Your task to perform on an android device: Search for vegetarian restaurants on Maps Image 0: 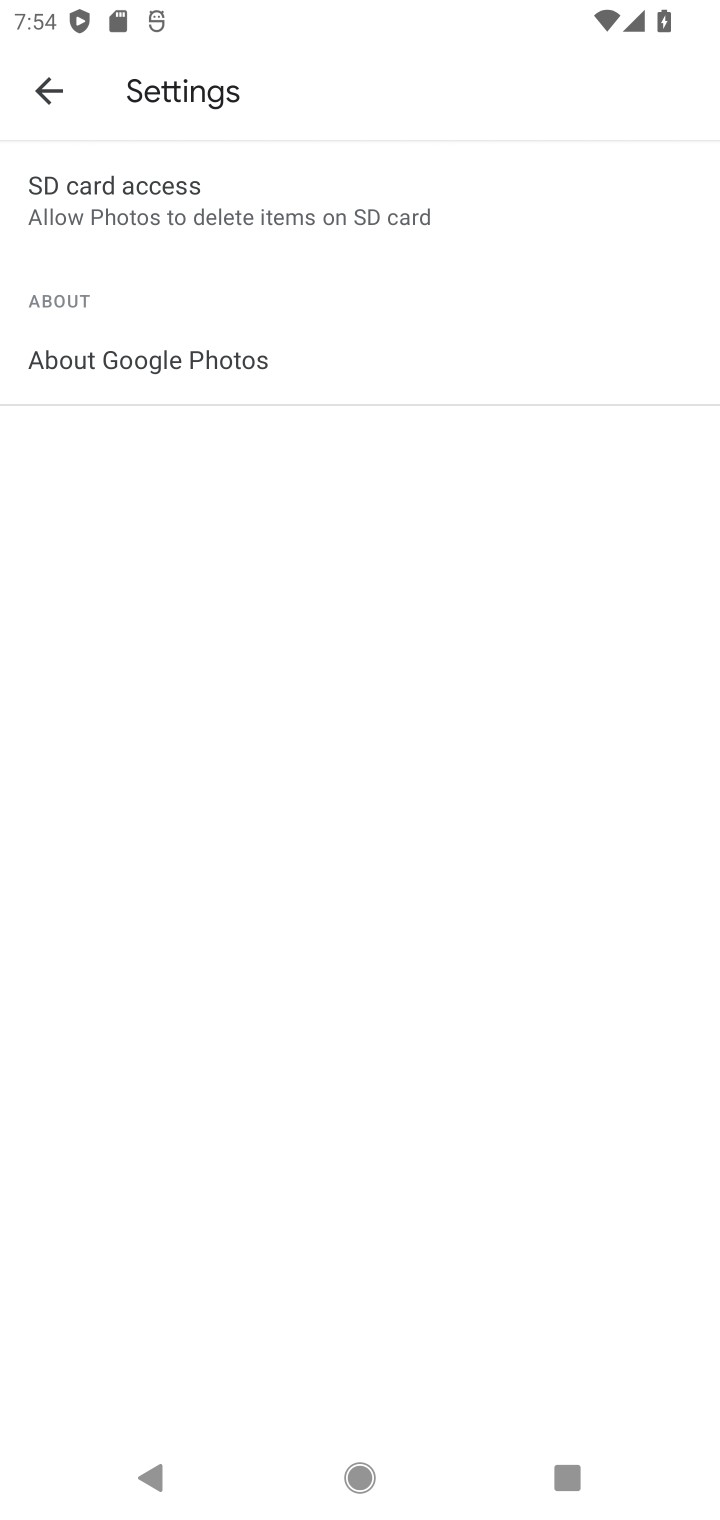
Step 0: press home button
Your task to perform on an android device: Search for vegetarian restaurants on Maps Image 1: 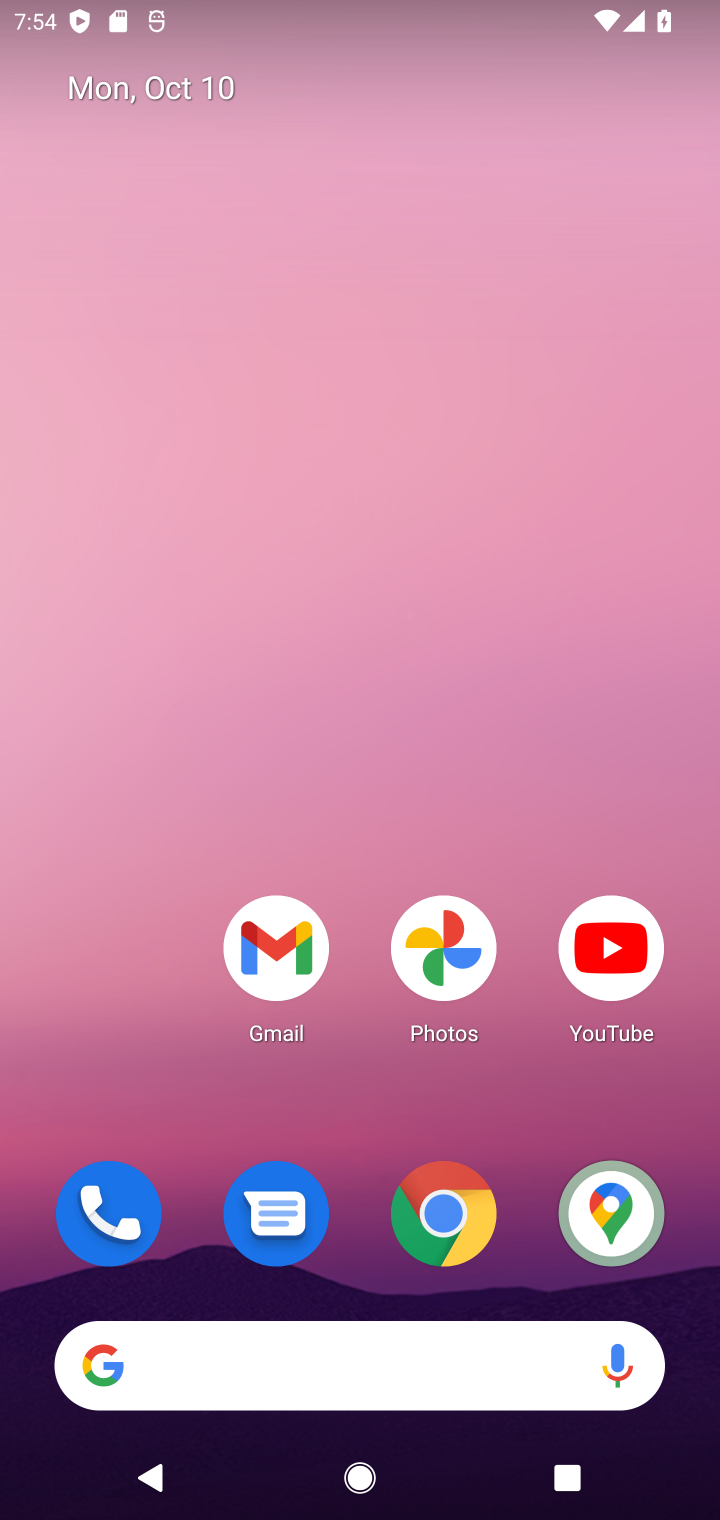
Step 1: click (595, 1213)
Your task to perform on an android device: Search for vegetarian restaurants on Maps Image 2: 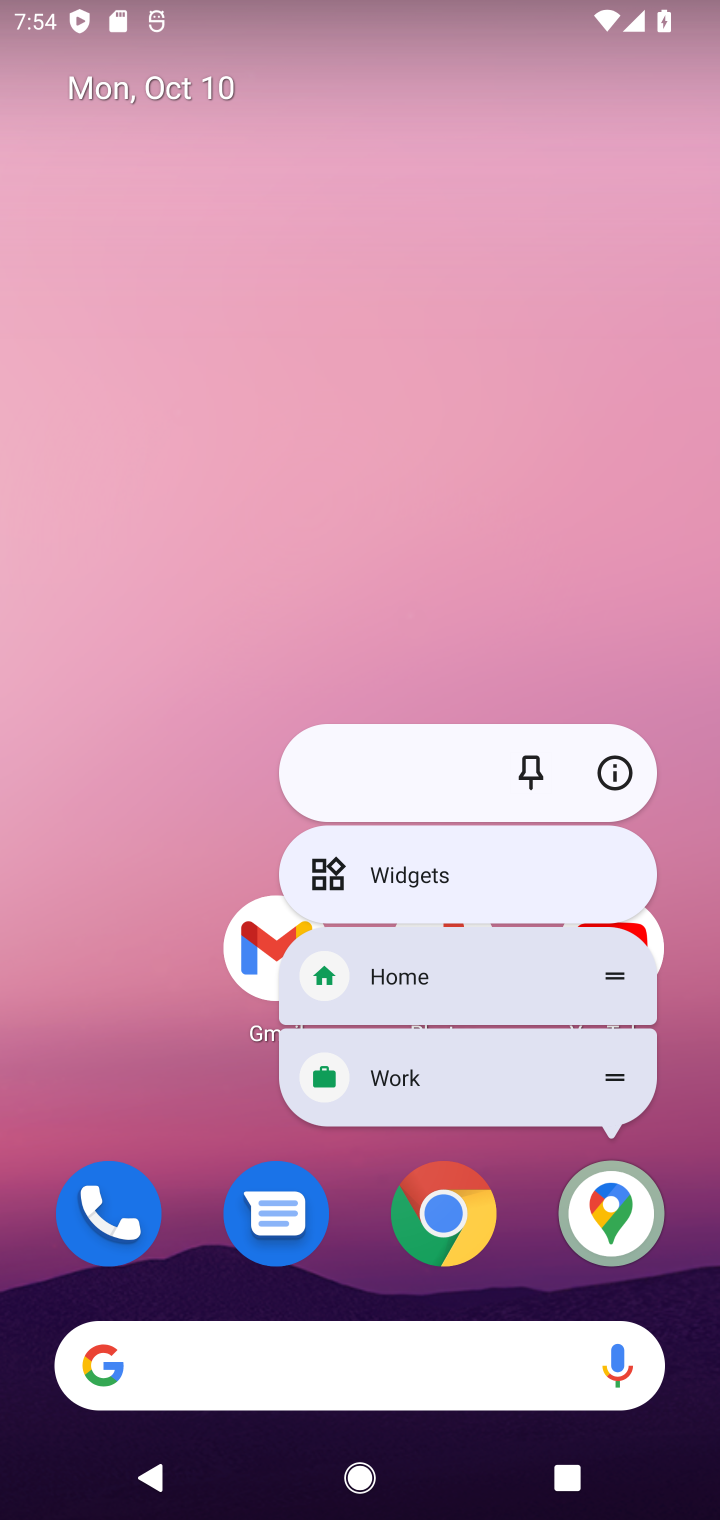
Step 2: click (605, 1243)
Your task to perform on an android device: Search for vegetarian restaurants on Maps Image 3: 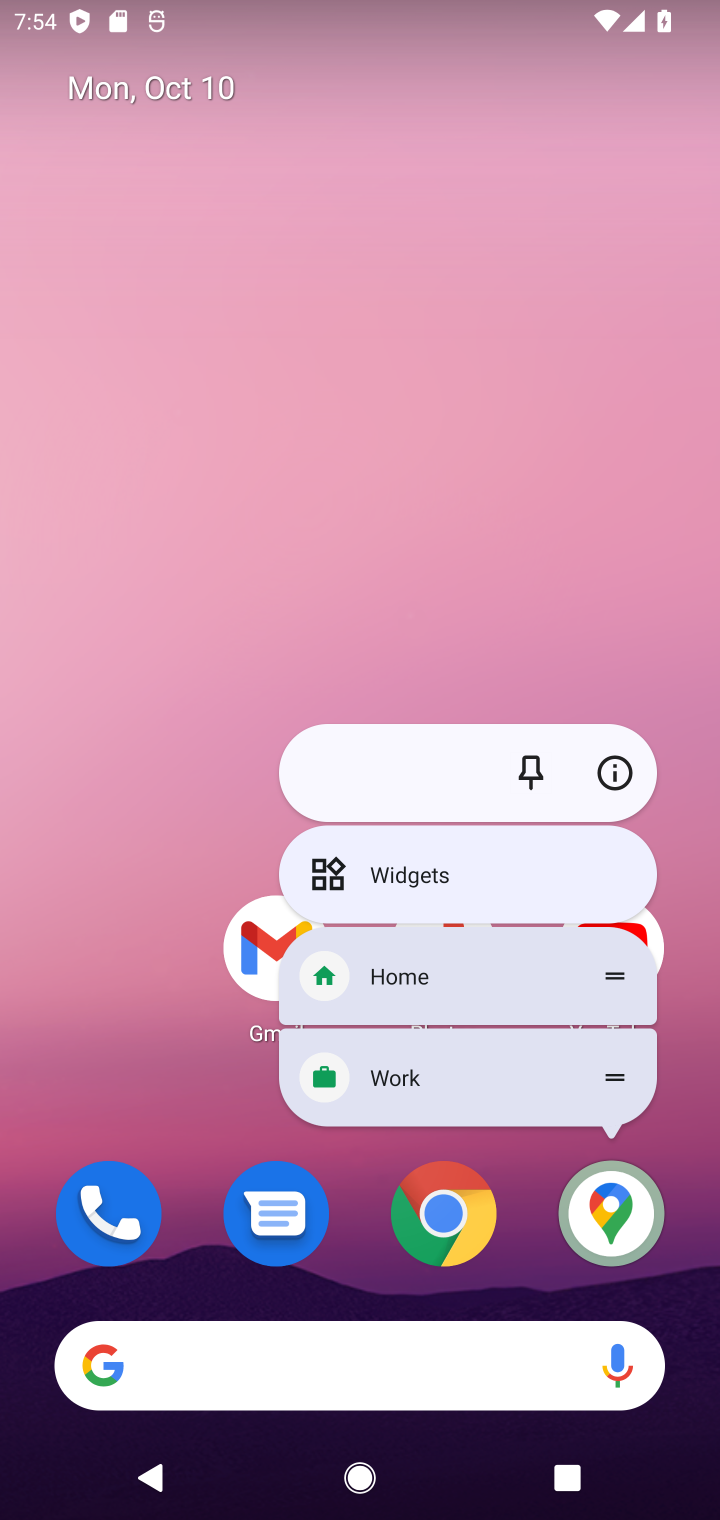
Step 3: click (610, 1211)
Your task to perform on an android device: Search for vegetarian restaurants on Maps Image 4: 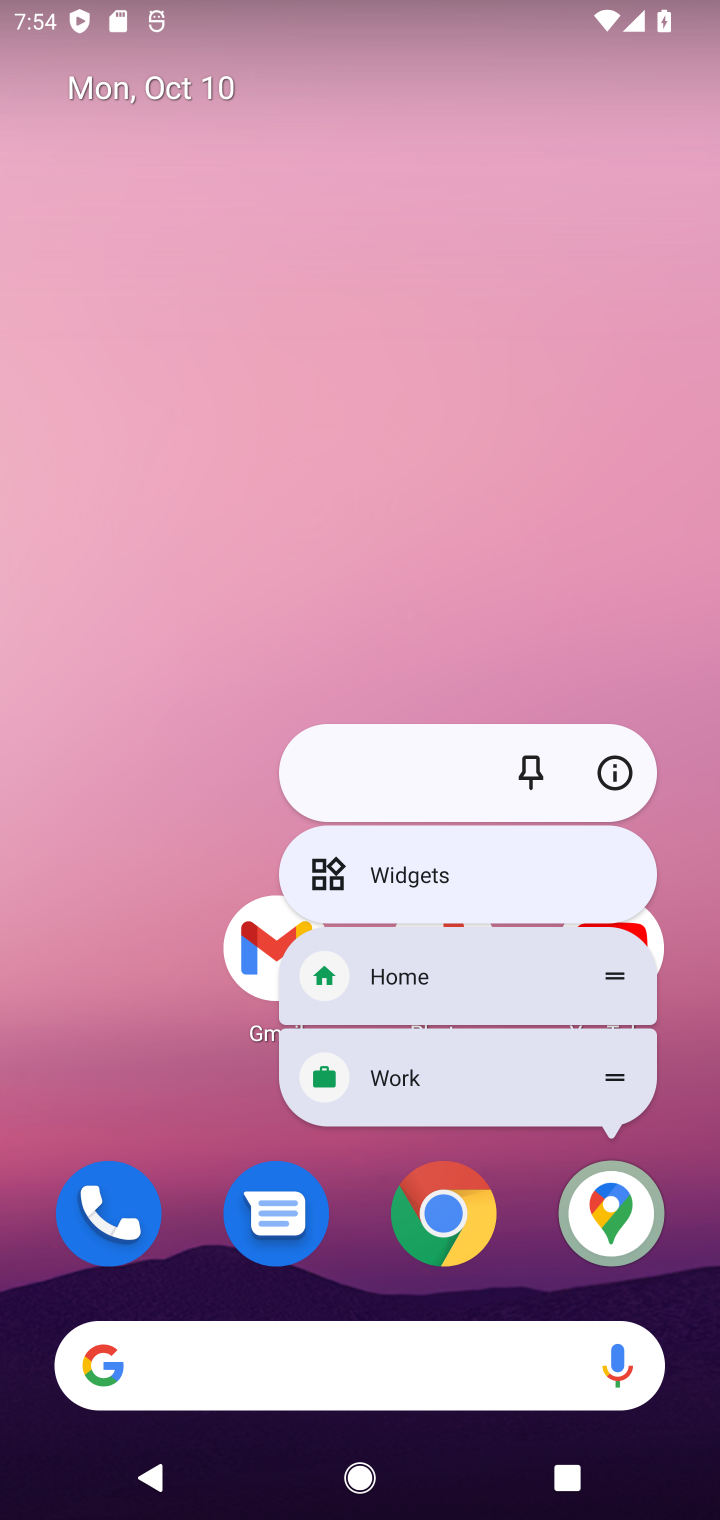
Step 4: click (599, 1220)
Your task to perform on an android device: Search for vegetarian restaurants on Maps Image 5: 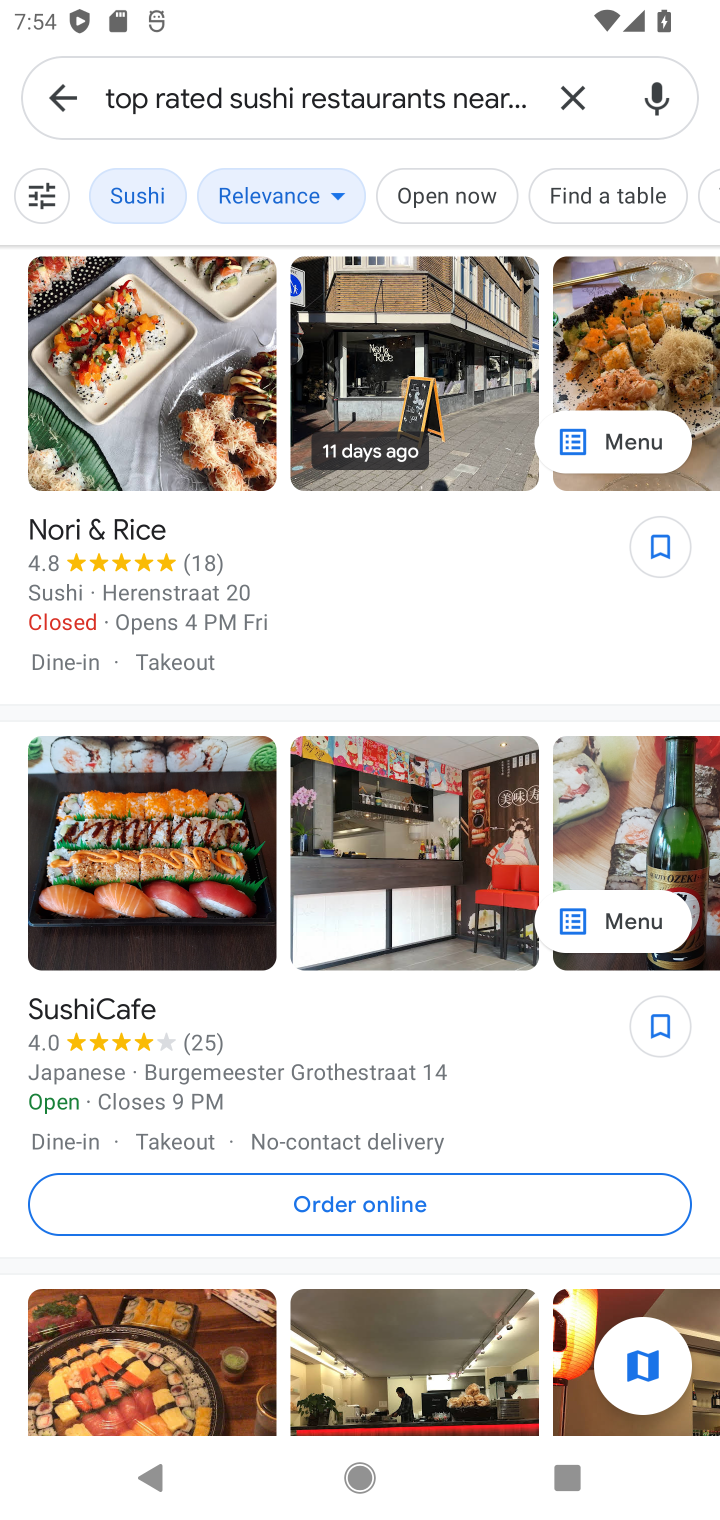
Step 5: click (569, 105)
Your task to perform on an android device: Search for vegetarian restaurants on Maps Image 6: 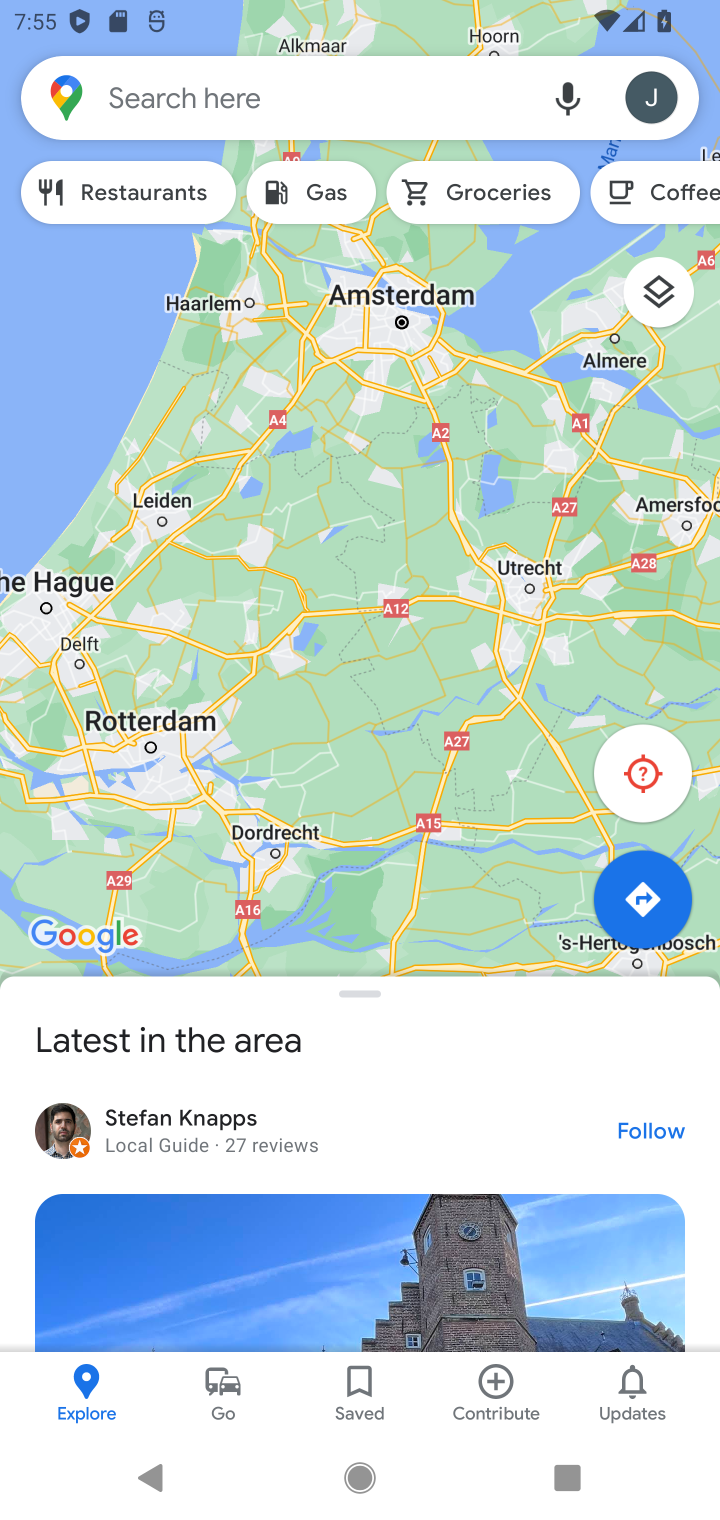
Step 6: click (183, 107)
Your task to perform on an android device: Search for vegetarian restaurants on Maps Image 7: 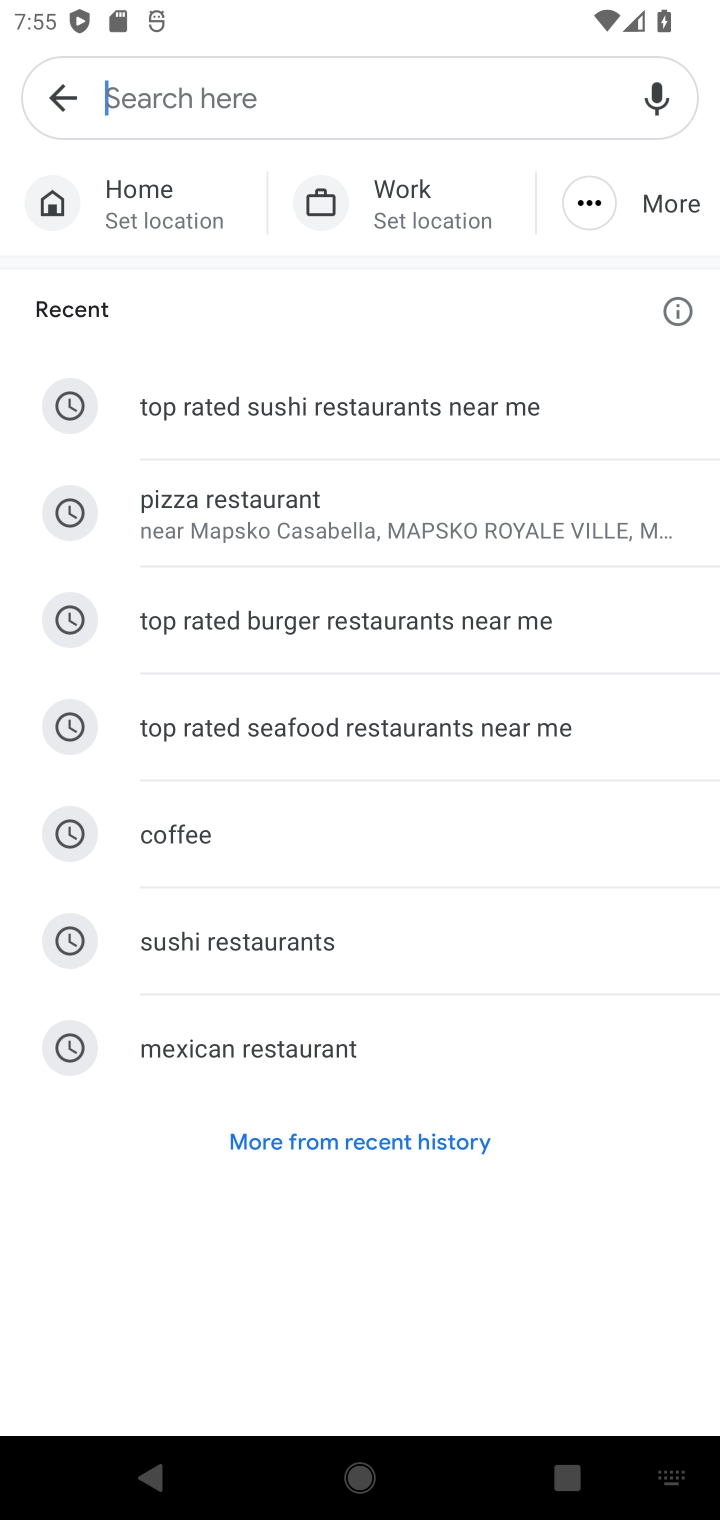
Step 7: type "vegetarian restaurants on Maps"
Your task to perform on an android device: Search for vegetarian restaurants on Maps Image 8: 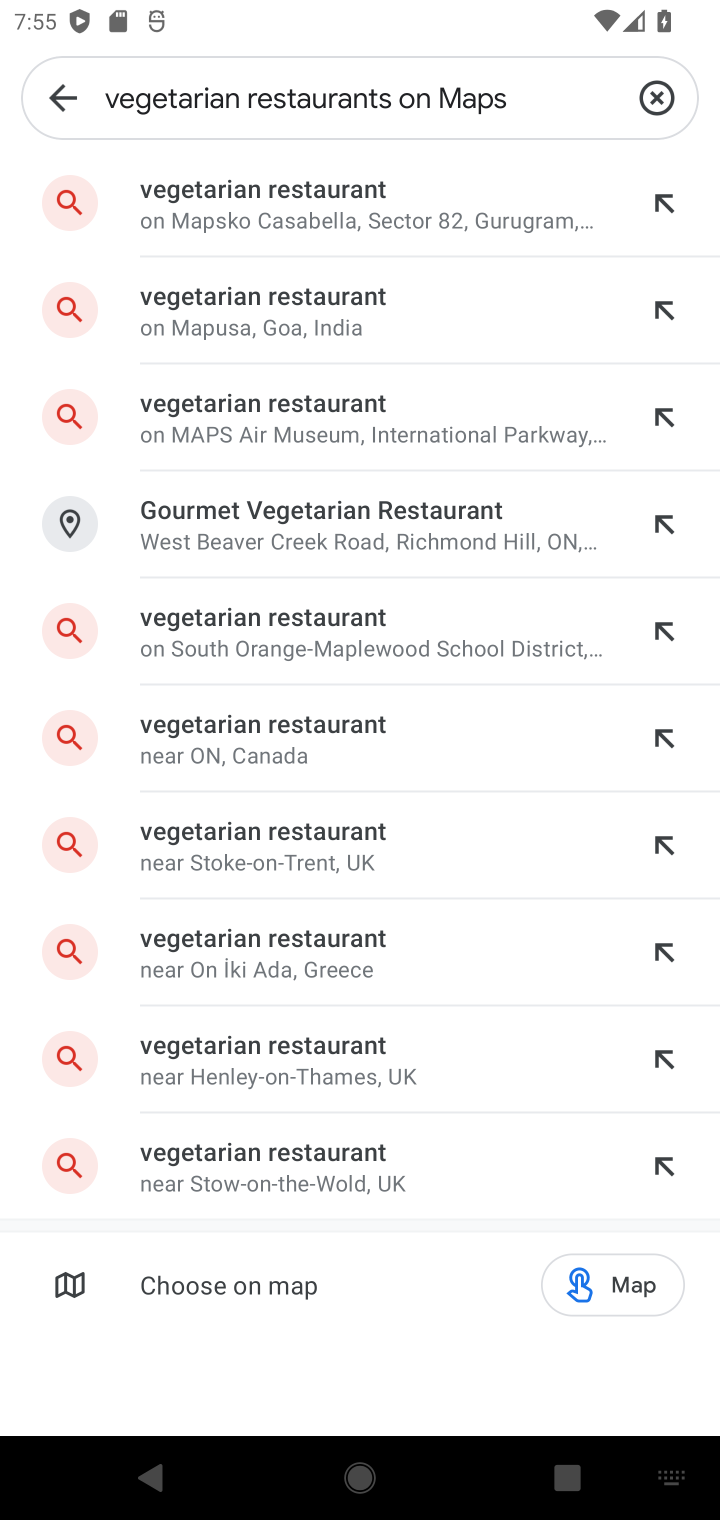
Step 8: click (339, 210)
Your task to perform on an android device: Search for vegetarian restaurants on Maps Image 9: 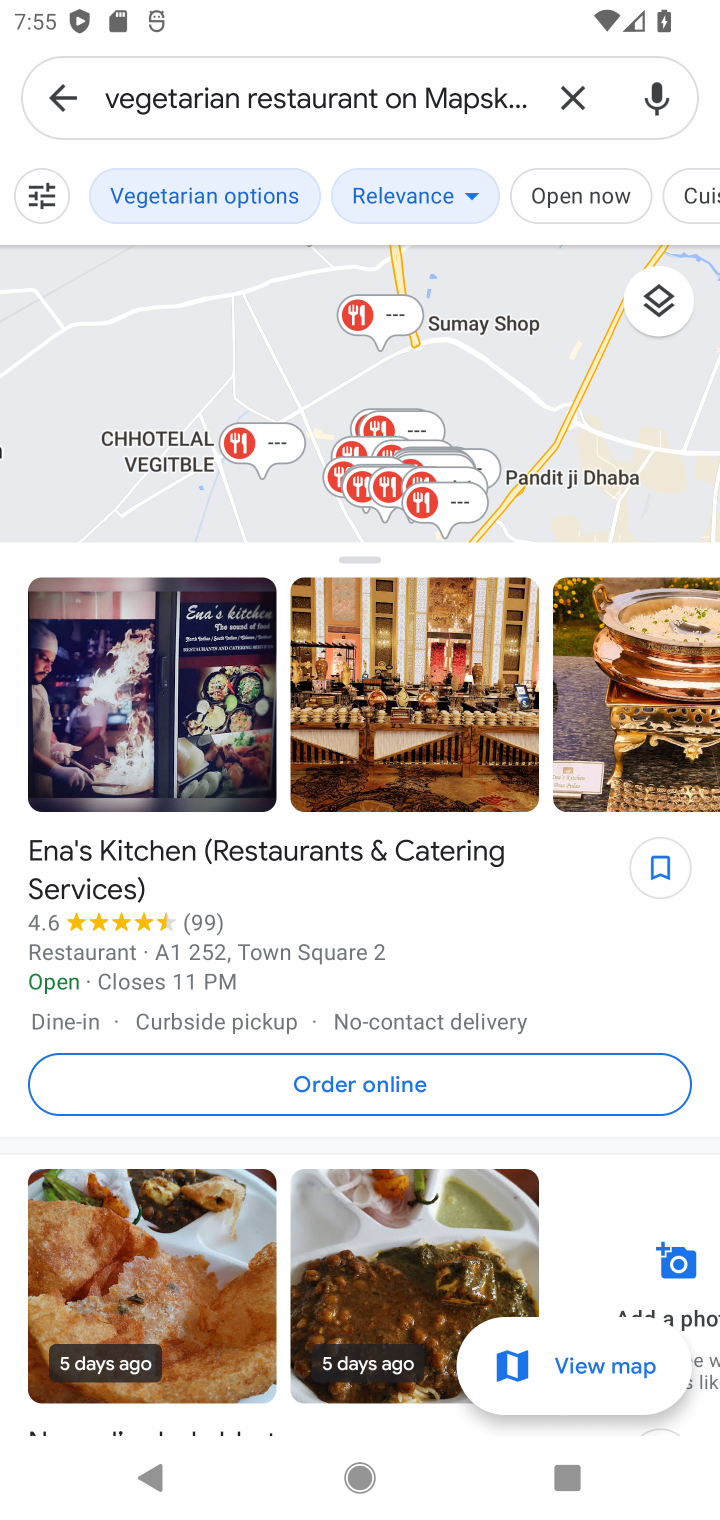
Step 9: task complete